Your task to perform on an android device: Go to Google maps Image 0: 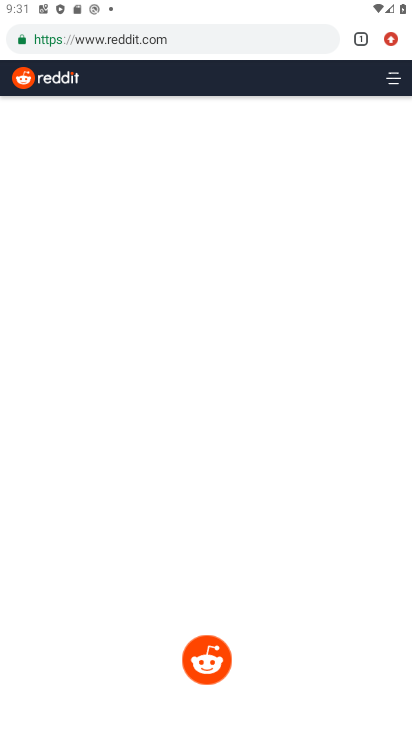
Step 0: press home button
Your task to perform on an android device: Go to Google maps Image 1: 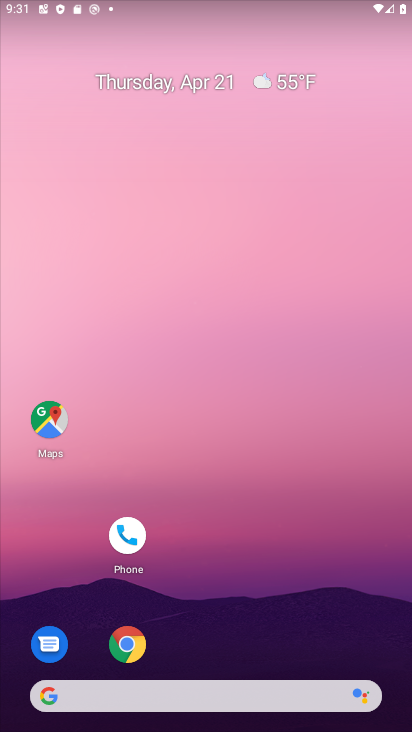
Step 1: drag from (264, 561) to (258, 197)
Your task to perform on an android device: Go to Google maps Image 2: 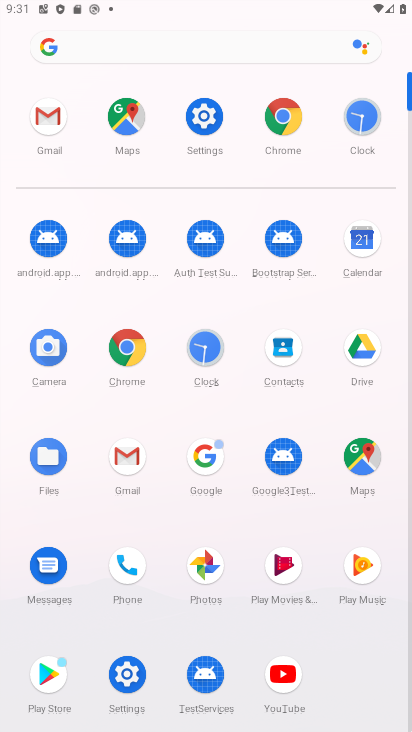
Step 2: click (374, 452)
Your task to perform on an android device: Go to Google maps Image 3: 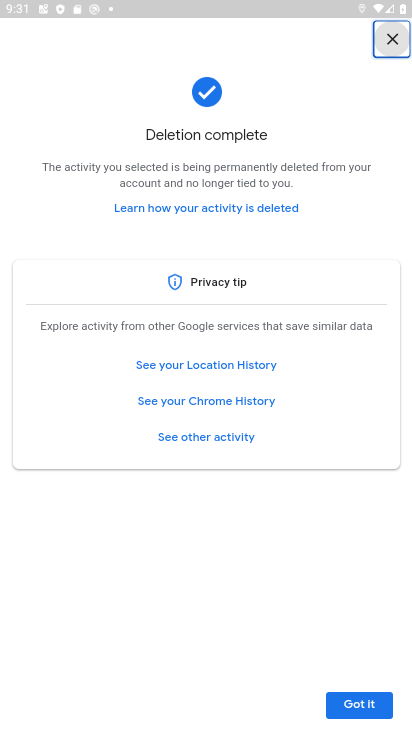
Step 3: click (366, 697)
Your task to perform on an android device: Go to Google maps Image 4: 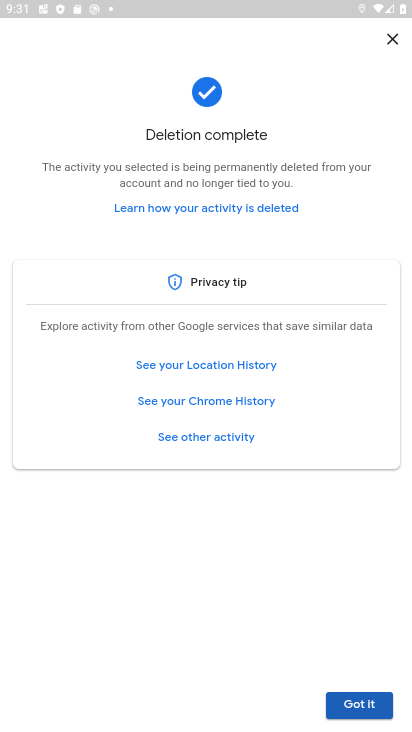
Step 4: click (358, 707)
Your task to perform on an android device: Go to Google maps Image 5: 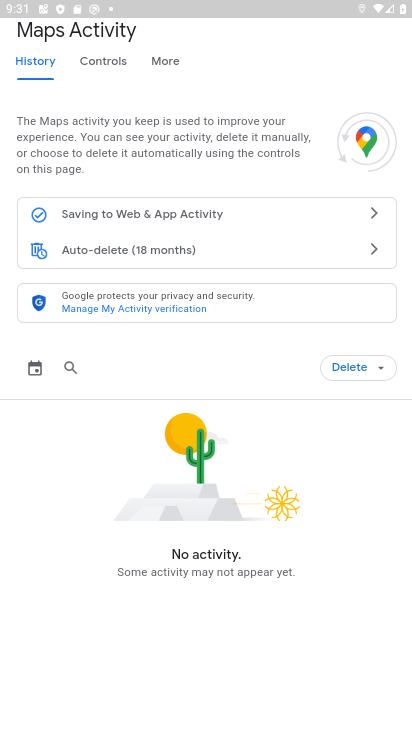
Step 5: task complete